Your task to perform on an android device: Show me popular games on the Play Store Image 0: 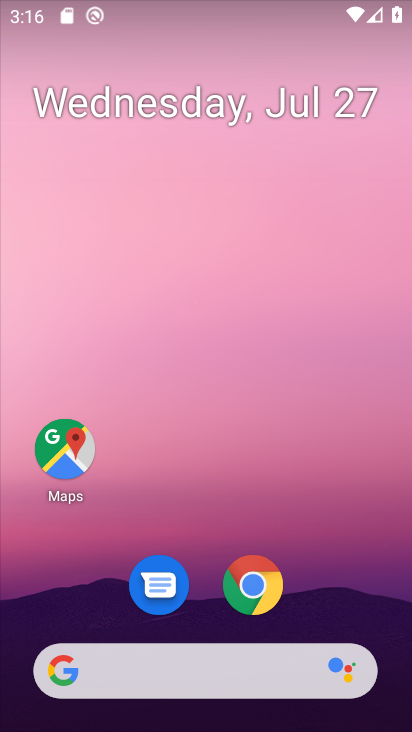
Step 0: drag from (318, 563) to (311, 108)
Your task to perform on an android device: Show me popular games on the Play Store Image 1: 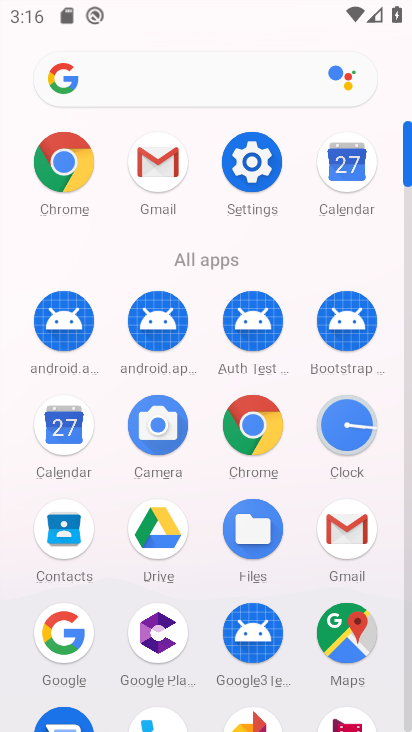
Step 1: drag from (203, 430) to (187, 234)
Your task to perform on an android device: Show me popular games on the Play Store Image 2: 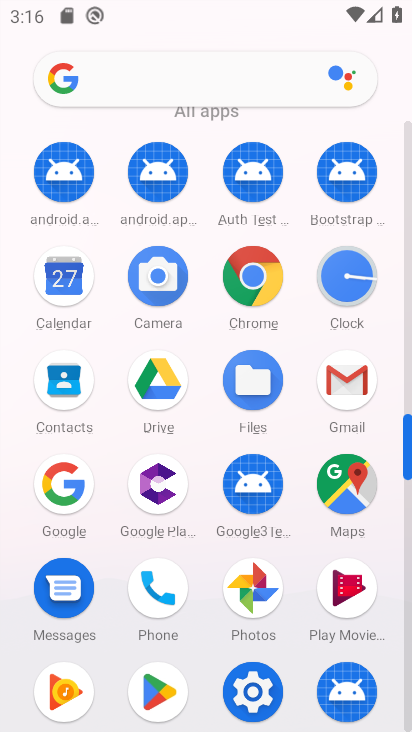
Step 2: drag from (198, 527) to (199, 437)
Your task to perform on an android device: Show me popular games on the Play Store Image 3: 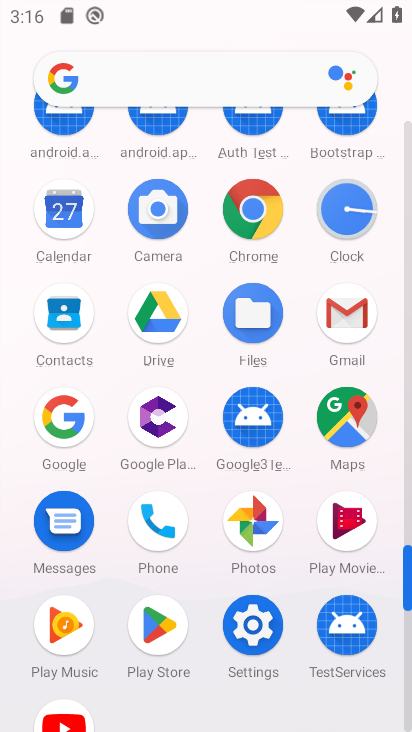
Step 3: click (163, 613)
Your task to perform on an android device: Show me popular games on the Play Store Image 4: 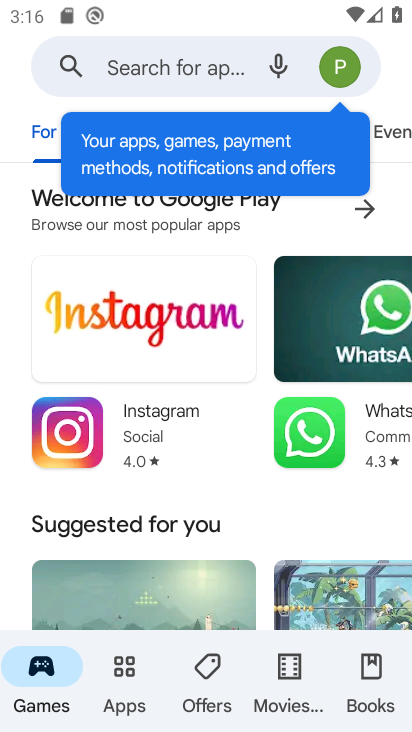
Step 4: drag from (165, 544) to (178, 99)
Your task to perform on an android device: Show me popular games on the Play Store Image 5: 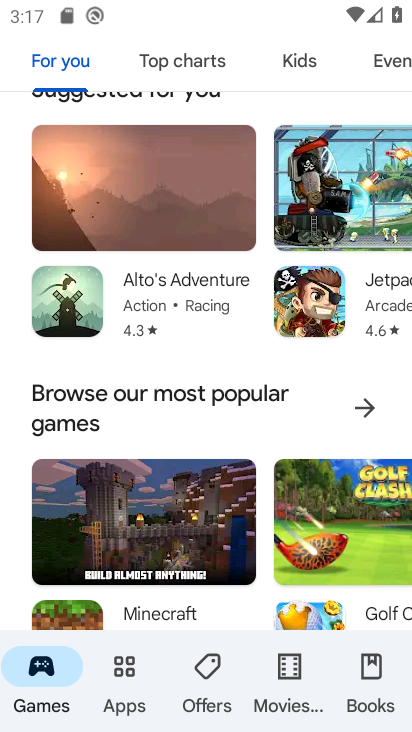
Step 5: click (368, 406)
Your task to perform on an android device: Show me popular games on the Play Store Image 6: 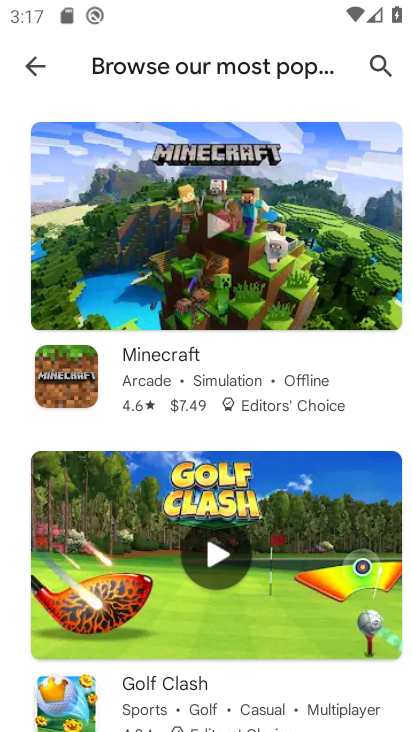
Step 6: task complete